Your task to perform on an android device: turn vacation reply on in the gmail app Image 0: 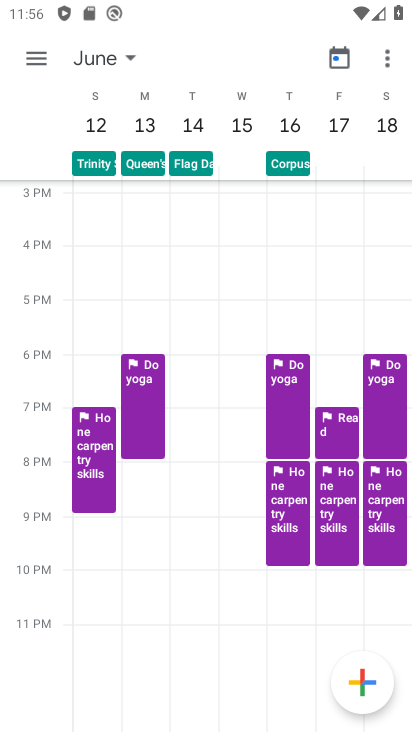
Step 0: press home button
Your task to perform on an android device: turn vacation reply on in the gmail app Image 1: 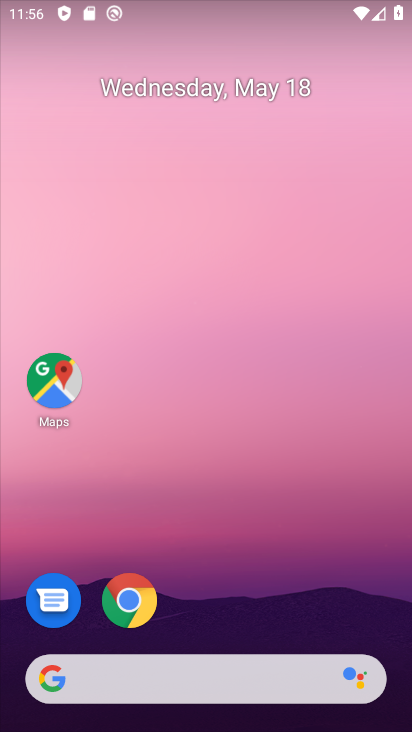
Step 1: drag from (253, 592) to (178, 50)
Your task to perform on an android device: turn vacation reply on in the gmail app Image 2: 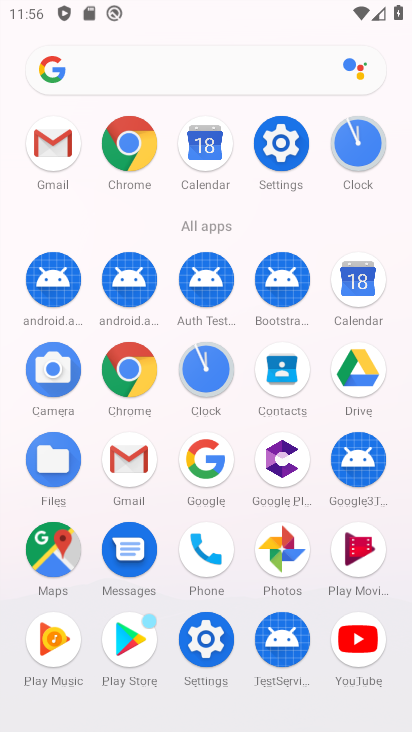
Step 2: click (46, 166)
Your task to perform on an android device: turn vacation reply on in the gmail app Image 3: 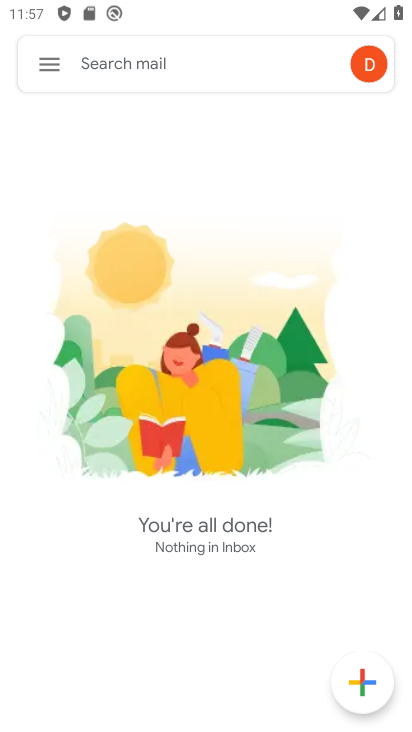
Step 3: click (39, 59)
Your task to perform on an android device: turn vacation reply on in the gmail app Image 4: 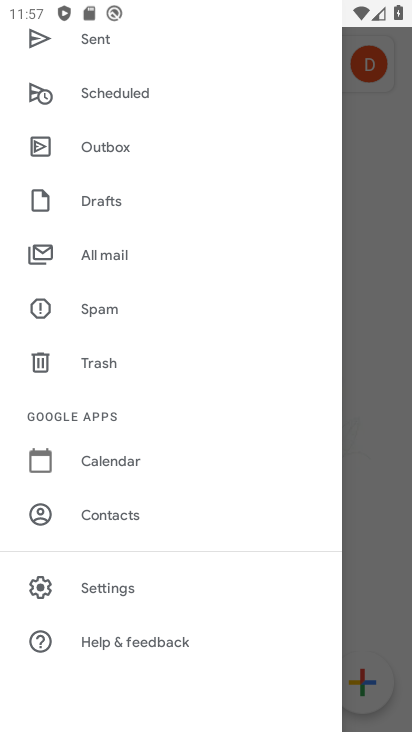
Step 4: click (177, 580)
Your task to perform on an android device: turn vacation reply on in the gmail app Image 5: 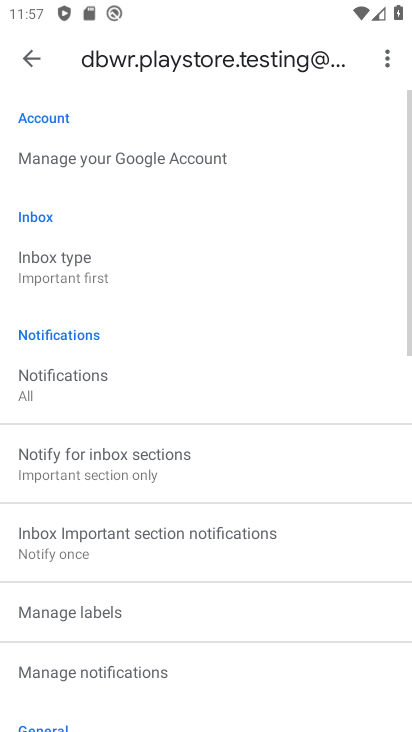
Step 5: drag from (273, 727) to (283, 314)
Your task to perform on an android device: turn vacation reply on in the gmail app Image 6: 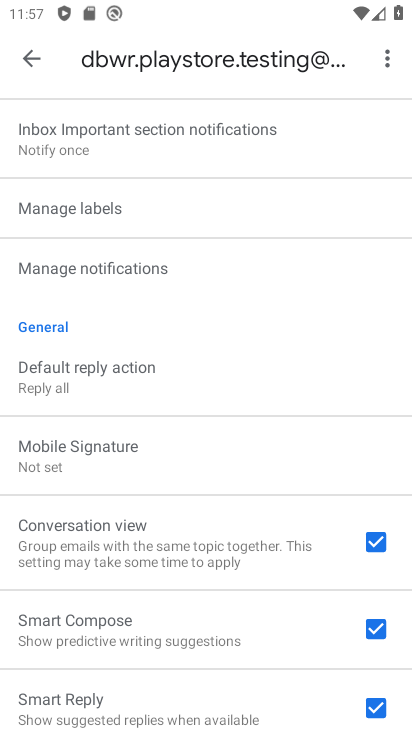
Step 6: drag from (185, 605) to (183, 159)
Your task to perform on an android device: turn vacation reply on in the gmail app Image 7: 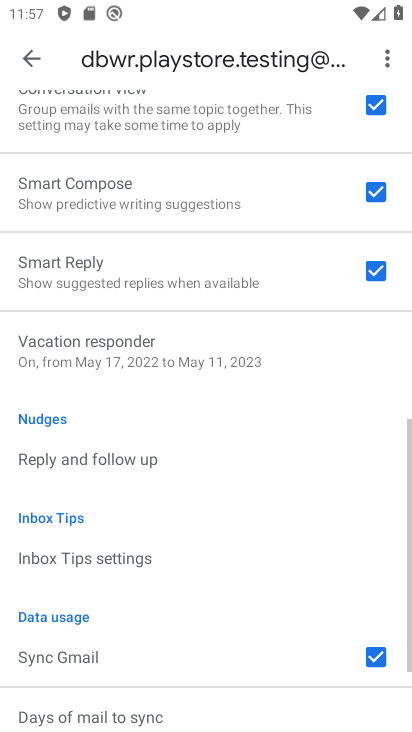
Step 7: click (143, 368)
Your task to perform on an android device: turn vacation reply on in the gmail app Image 8: 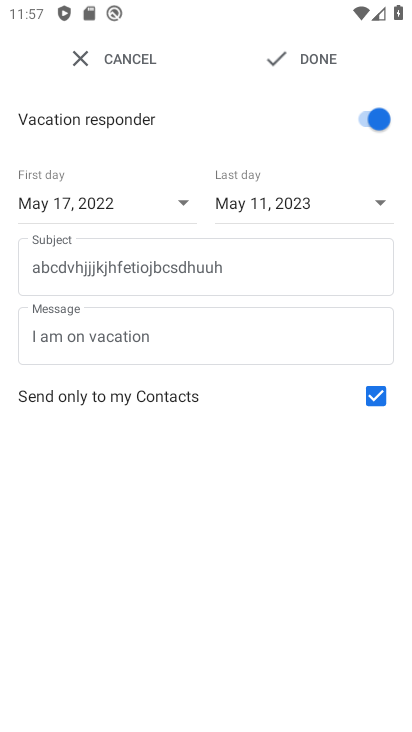
Step 8: click (315, 50)
Your task to perform on an android device: turn vacation reply on in the gmail app Image 9: 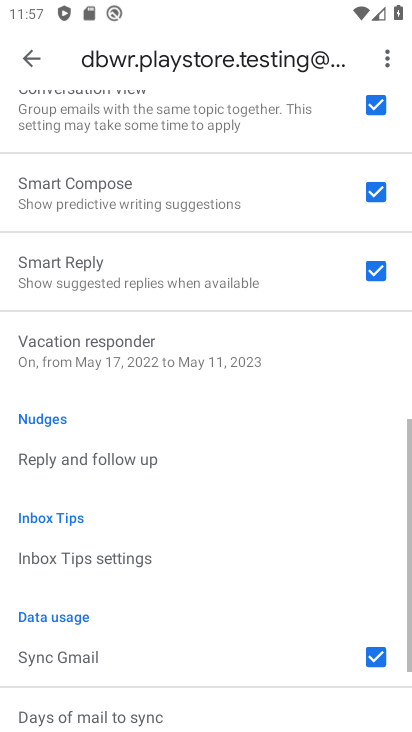
Step 9: task complete